Your task to perform on an android device: Go to Maps Image 0: 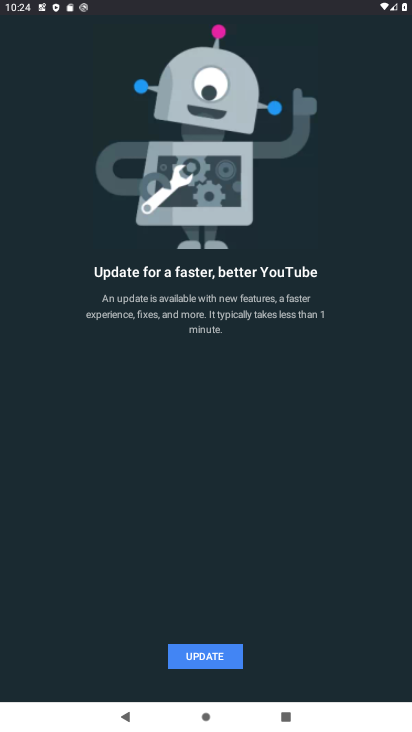
Step 0: press home button
Your task to perform on an android device: Go to Maps Image 1: 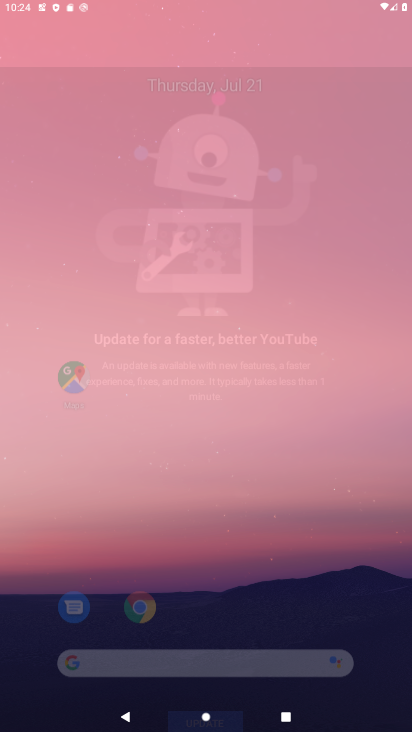
Step 1: drag from (356, 622) to (313, 98)
Your task to perform on an android device: Go to Maps Image 2: 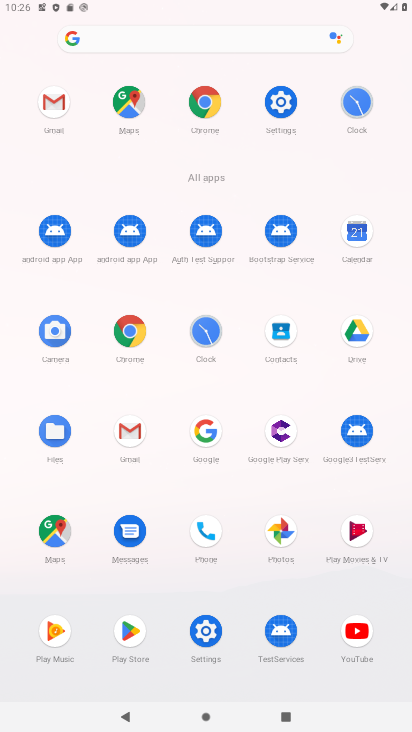
Step 2: click (138, 99)
Your task to perform on an android device: Go to Maps Image 3: 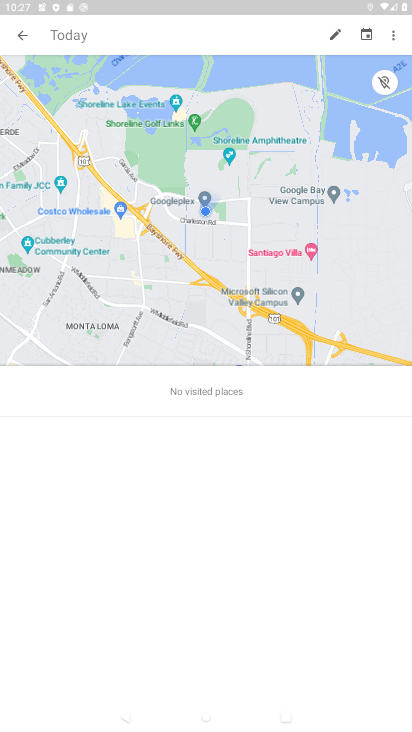
Step 3: task complete